Your task to perform on an android device: What's the news in China? Image 0: 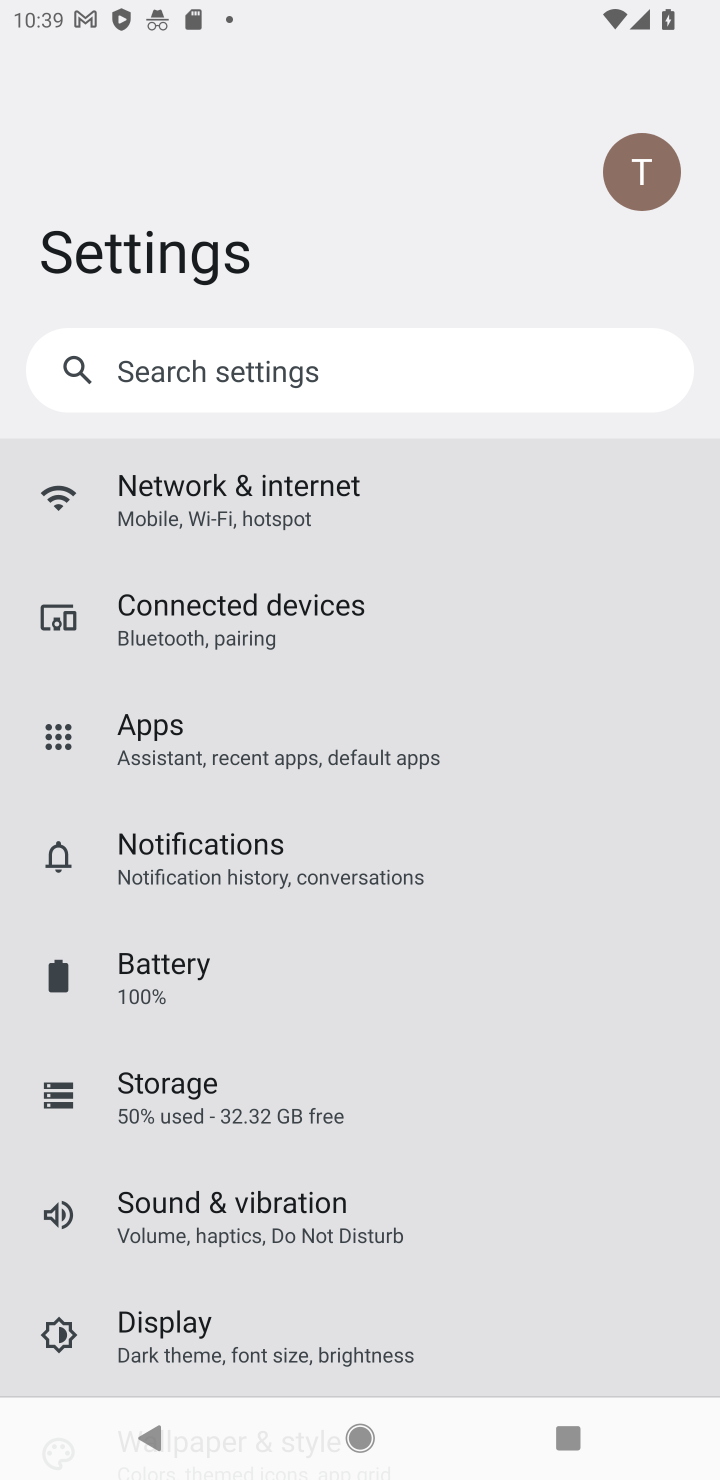
Step 0: press home button
Your task to perform on an android device: What's the news in China? Image 1: 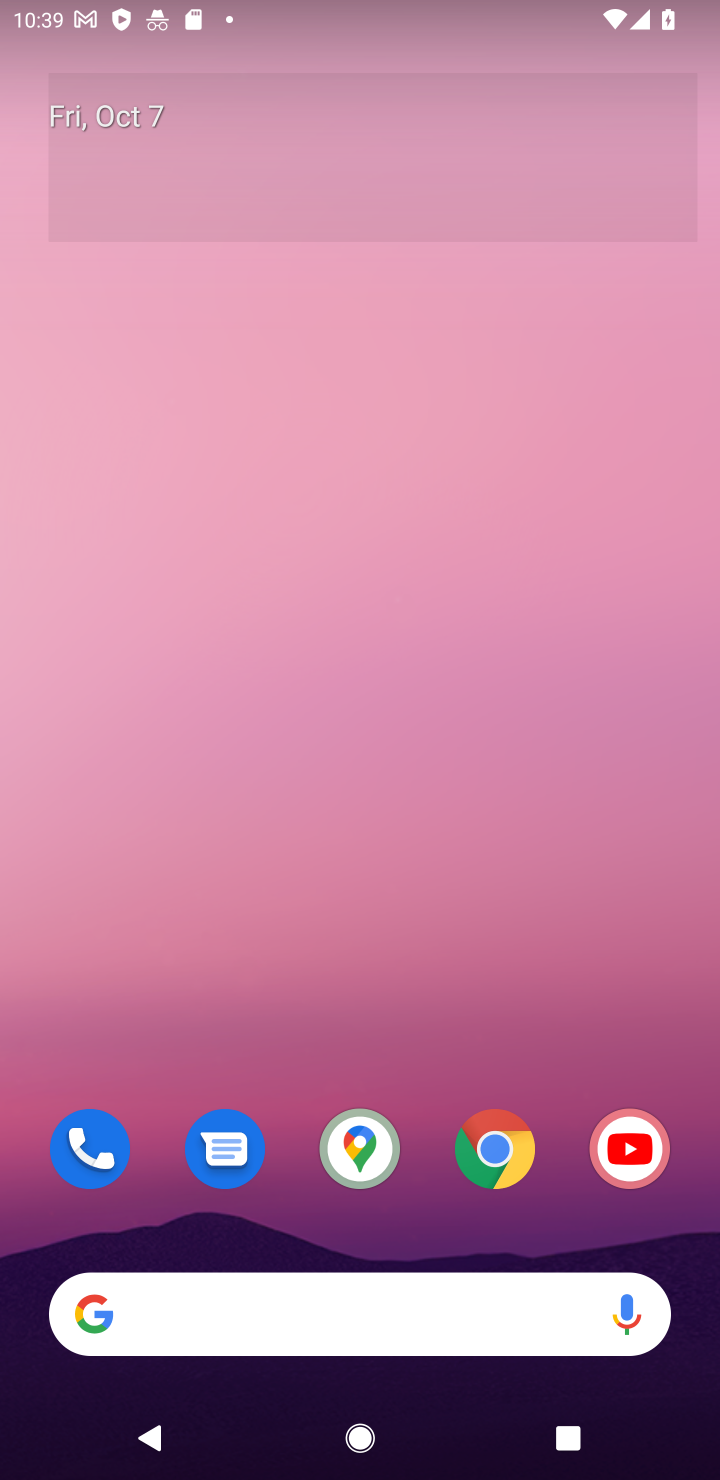
Step 1: click (196, 1279)
Your task to perform on an android device: What's the news in China? Image 2: 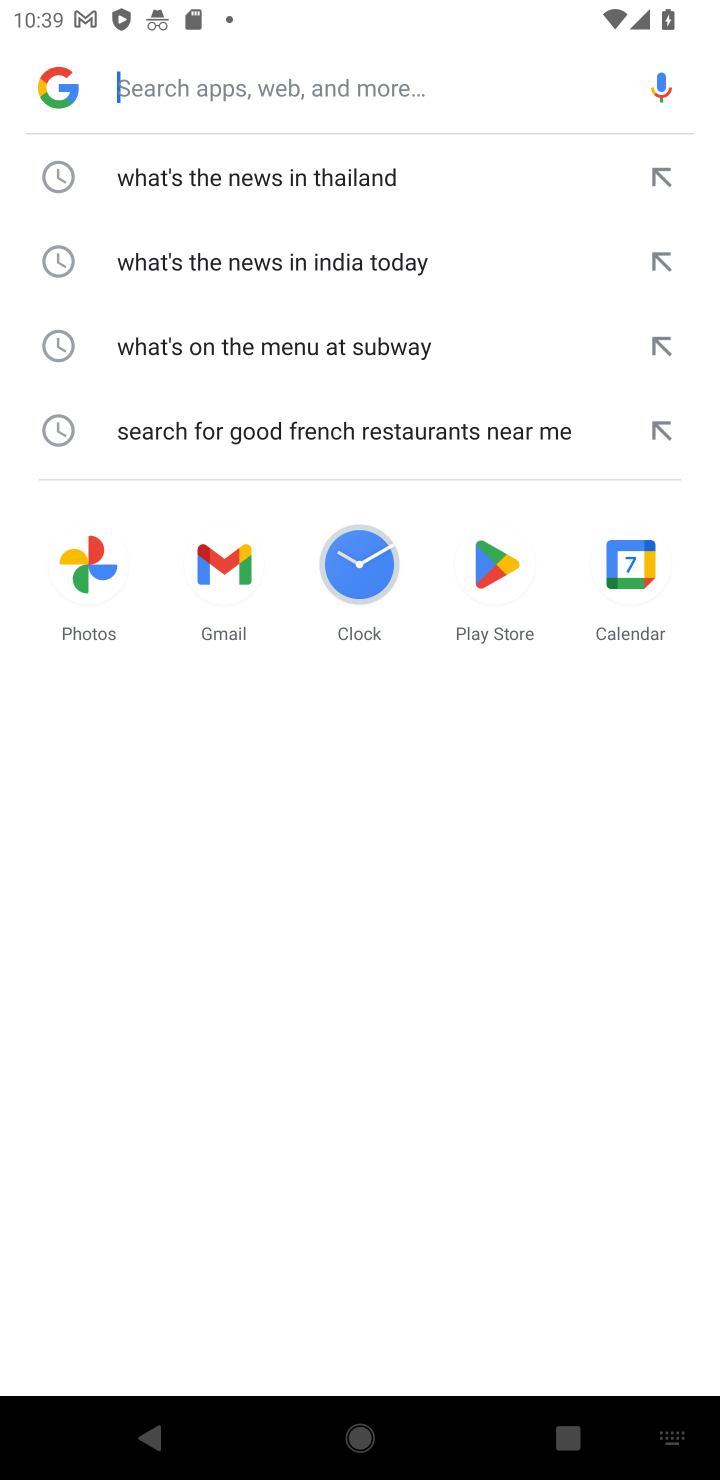
Step 2: type "What's the news in China?"
Your task to perform on an android device: What's the news in China? Image 3: 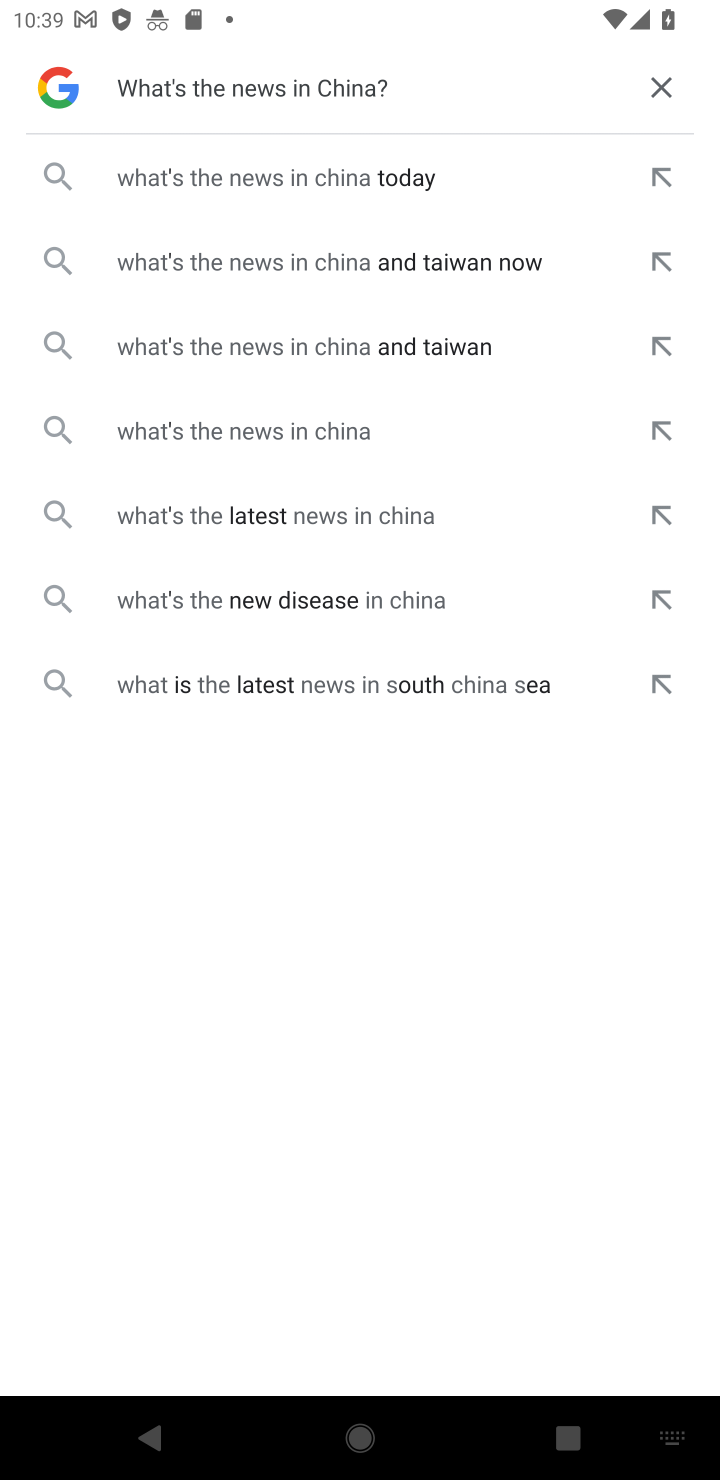
Step 3: click (413, 186)
Your task to perform on an android device: What's the news in China? Image 4: 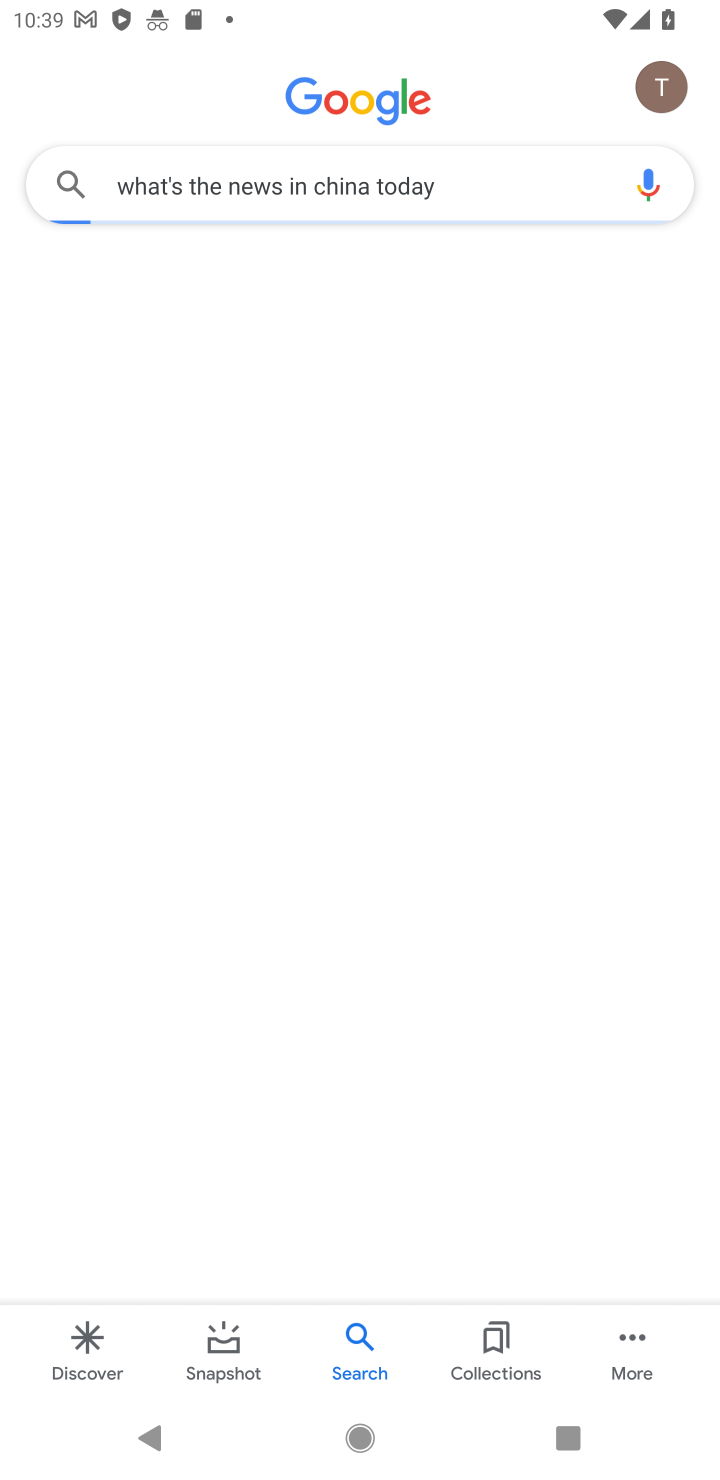
Step 4: task complete